Your task to perform on an android device: turn on translation in the chrome app Image 0: 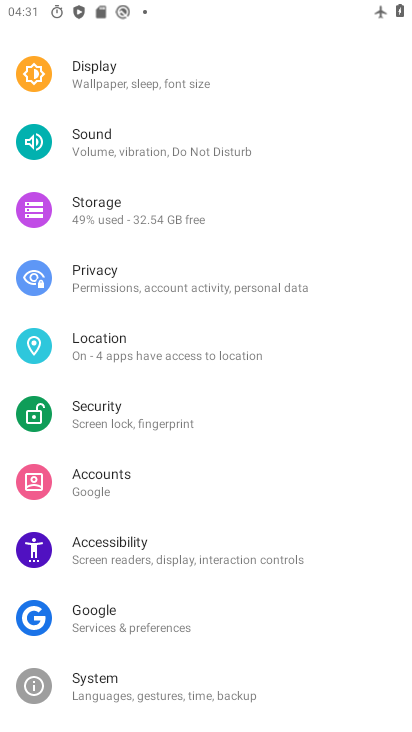
Step 0: press home button
Your task to perform on an android device: turn on translation in the chrome app Image 1: 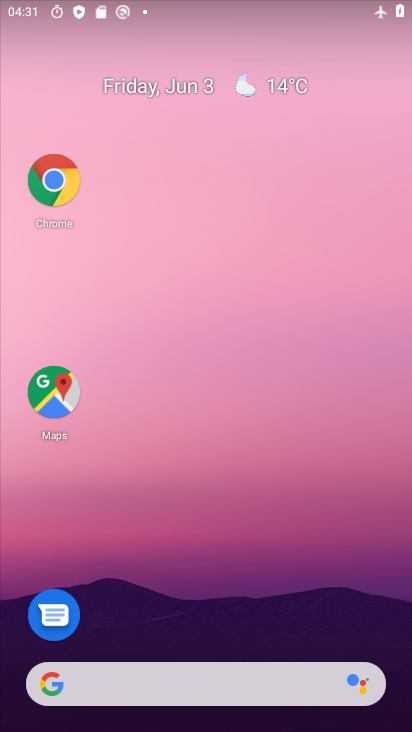
Step 1: click (67, 192)
Your task to perform on an android device: turn on translation in the chrome app Image 2: 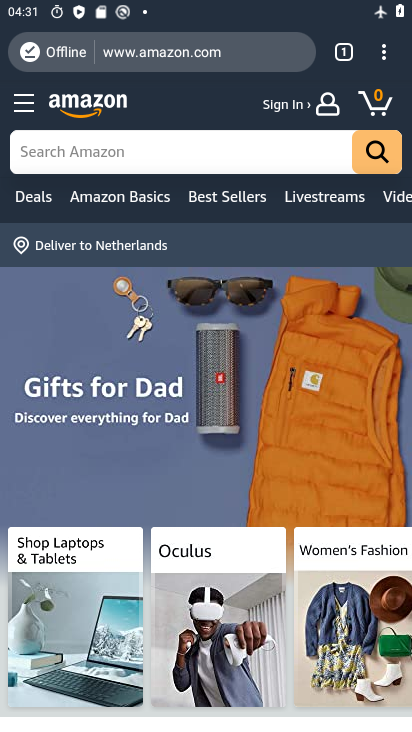
Step 2: click (383, 61)
Your task to perform on an android device: turn on translation in the chrome app Image 3: 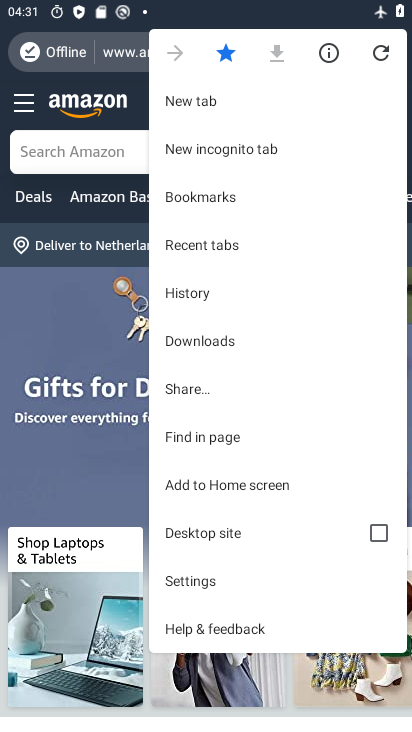
Step 3: click (190, 586)
Your task to perform on an android device: turn on translation in the chrome app Image 4: 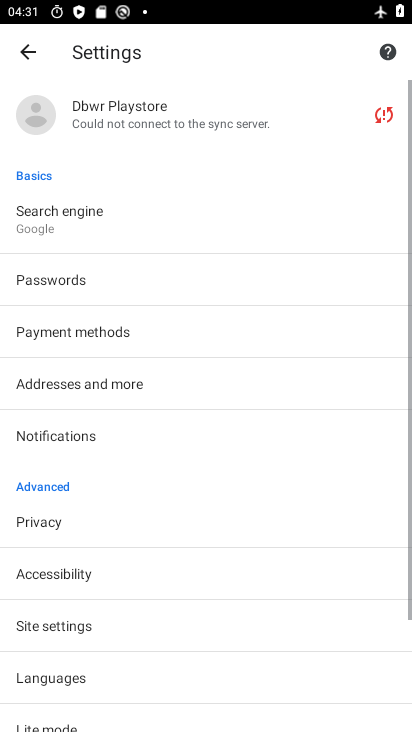
Step 4: click (65, 681)
Your task to perform on an android device: turn on translation in the chrome app Image 5: 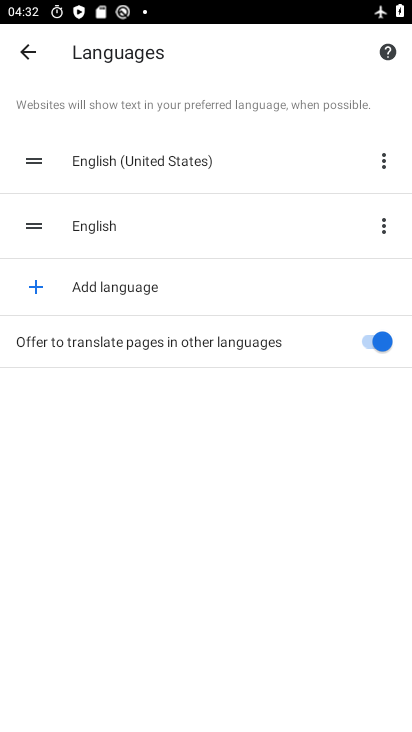
Step 5: task complete